Your task to perform on an android device: search for starred emails in the gmail app Image 0: 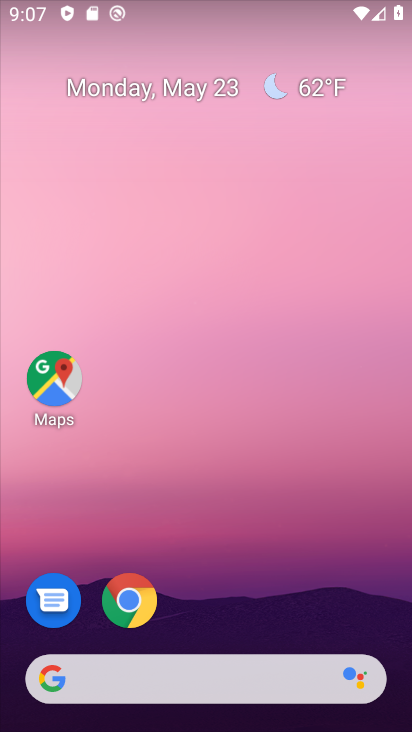
Step 0: drag from (331, 627) to (311, 67)
Your task to perform on an android device: search for starred emails in the gmail app Image 1: 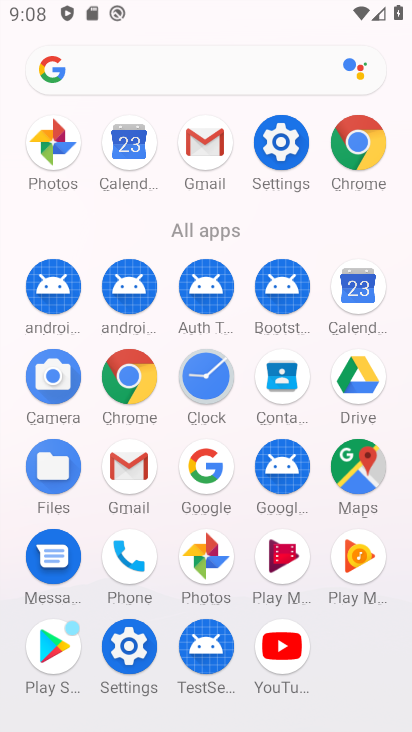
Step 1: click (104, 477)
Your task to perform on an android device: search for starred emails in the gmail app Image 2: 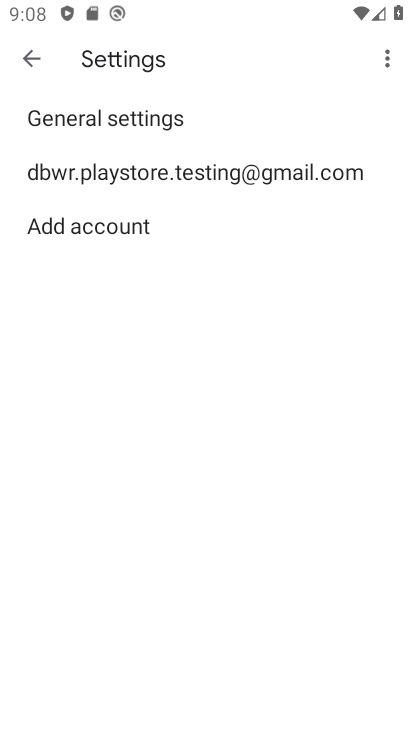
Step 2: press back button
Your task to perform on an android device: search for starred emails in the gmail app Image 3: 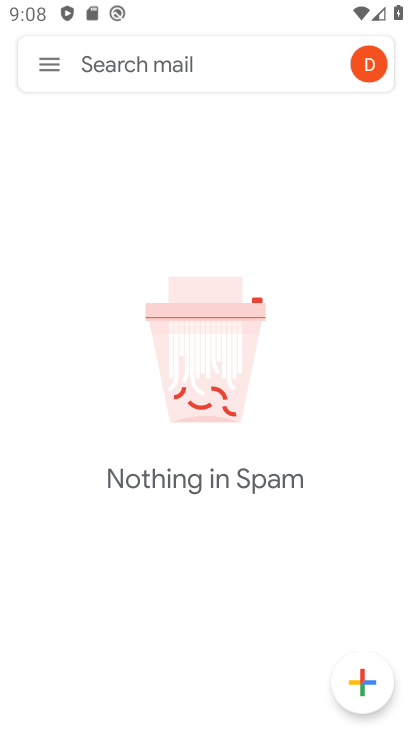
Step 3: click (55, 61)
Your task to perform on an android device: search for starred emails in the gmail app Image 4: 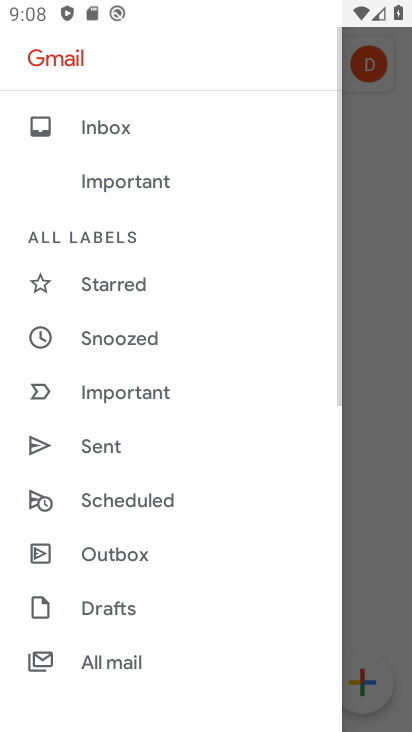
Step 4: click (132, 278)
Your task to perform on an android device: search for starred emails in the gmail app Image 5: 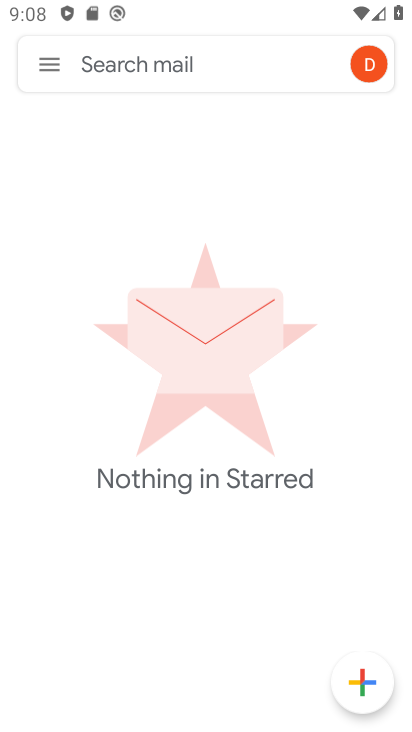
Step 5: task complete